Your task to perform on an android device: What's on my calendar tomorrow? Image 0: 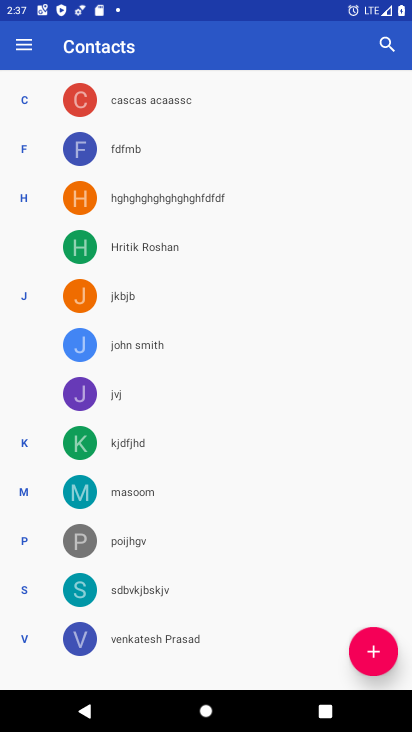
Step 0: press home button
Your task to perform on an android device: What's on my calendar tomorrow? Image 1: 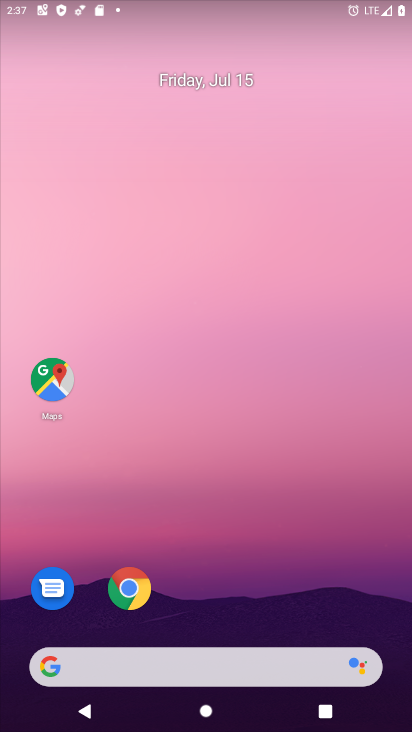
Step 1: drag from (226, 674) to (220, 76)
Your task to perform on an android device: What's on my calendar tomorrow? Image 2: 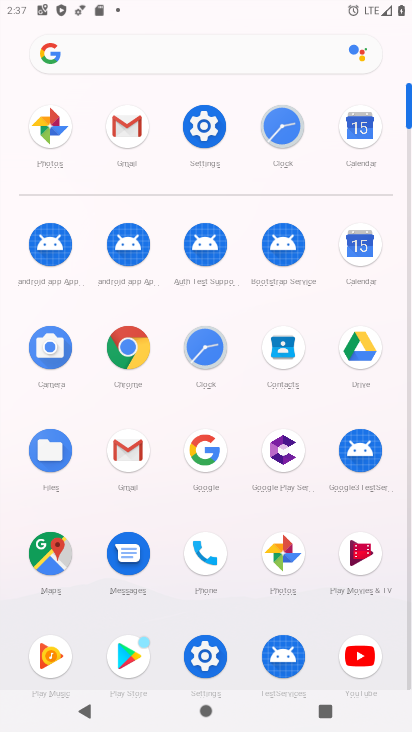
Step 2: click (360, 246)
Your task to perform on an android device: What's on my calendar tomorrow? Image 3: 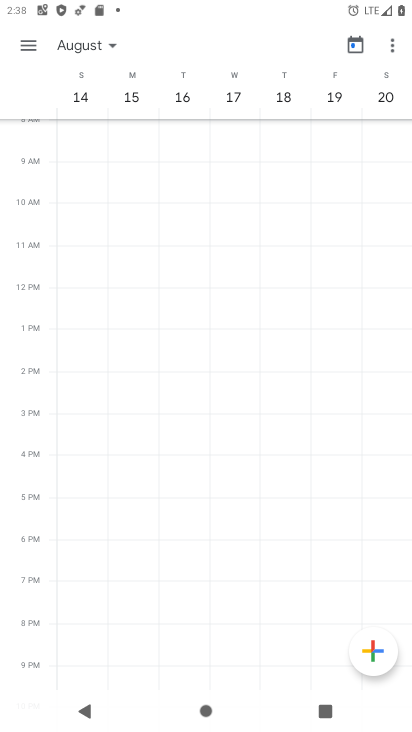
Step 3: click (359, 45)
Your task to perform on an android device: What's on my calendar tomorrow? Image 4: 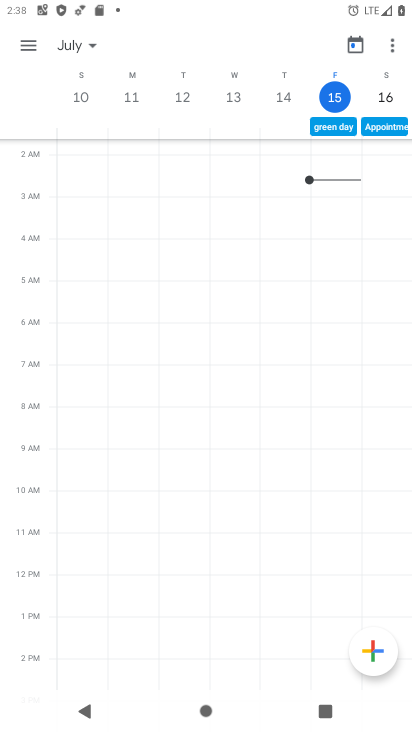
Step 4: click (91, 44)
Your task to perform on an android device: What's on my calendar tomorrow? Image 5: 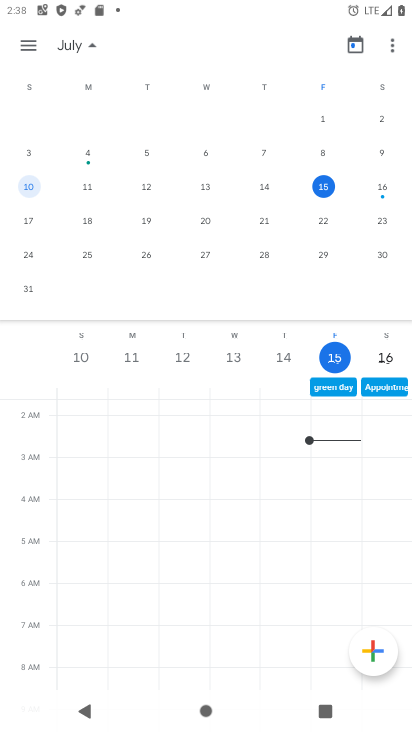
Step 5: click (380, 196)
Your task to perform on an android device: What's on my calendar tomorrow? Image 6: 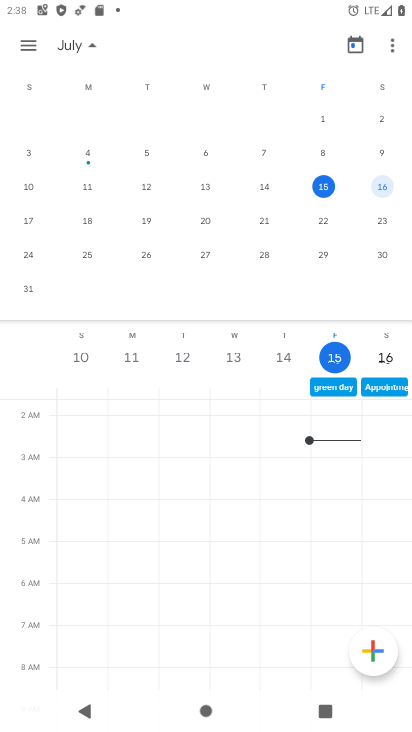
Step 6: click (28, 49)
Your task to perform on an android device: What's on my calendar tomorrow? Image 7: 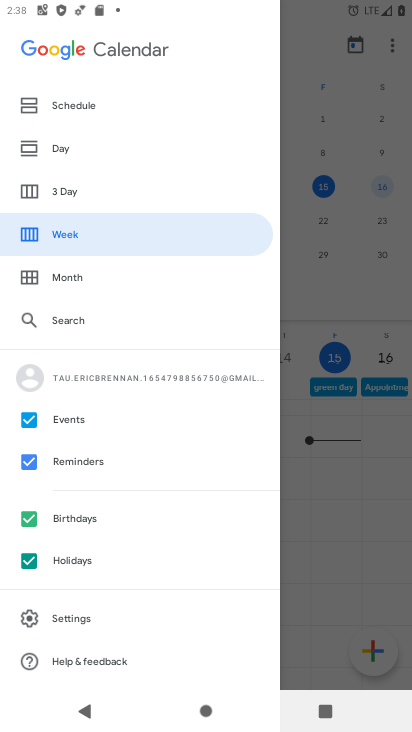
Step 7: click (62, 101)
Your task to perform on an android device: What's on my calendar tomorrow? Image 8: 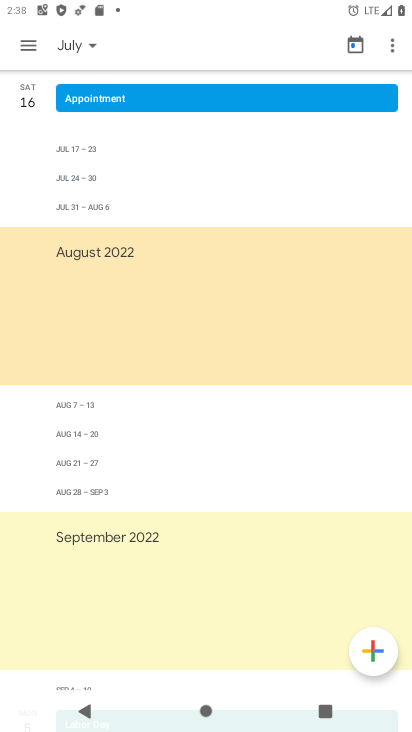
Step 8: task complete